Your task to perform on an android device: set the timer Image 0: 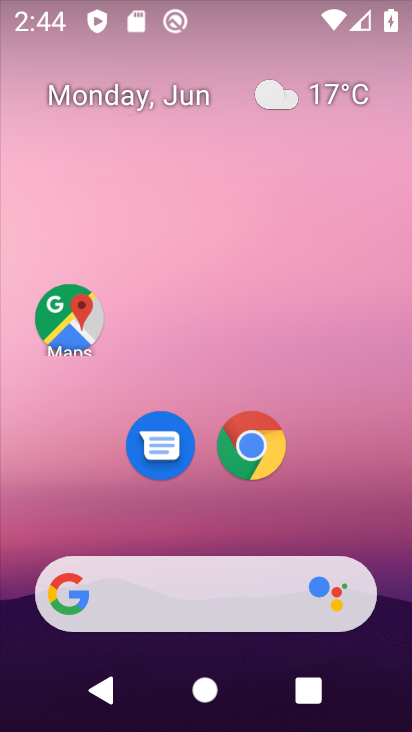
Step 0: drag from (171, 480) to (254, 143)
Your task to perform on an android device: set the timer Image 1: 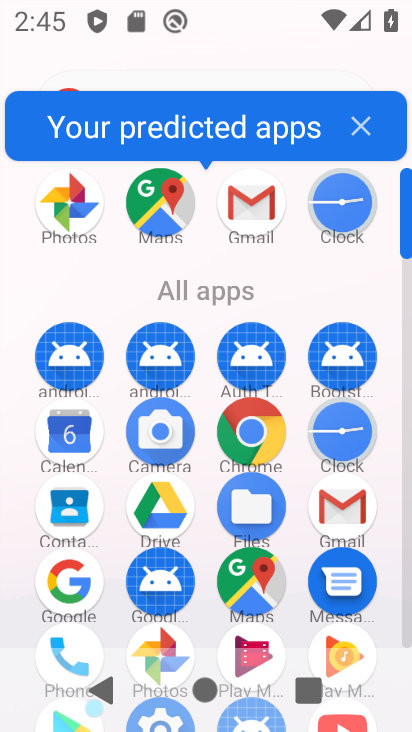
Step 1: click (322, 435)
Your task to perform on an android device: set the timer Image 2: 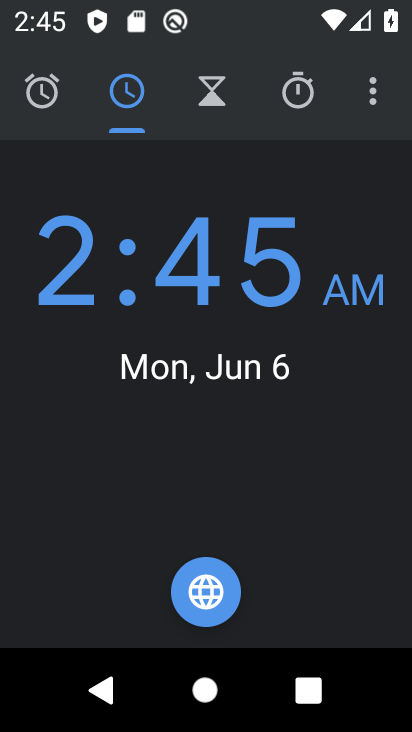
Step 2: click (218, 102)
Your task to perform on an android device: set the timer Image 3: 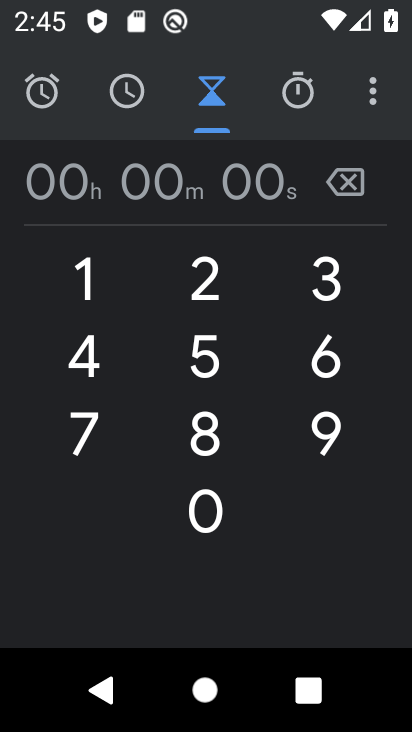
Step 3: click (200, 264)
Your task to perform on an android device: set the timer Image 4: 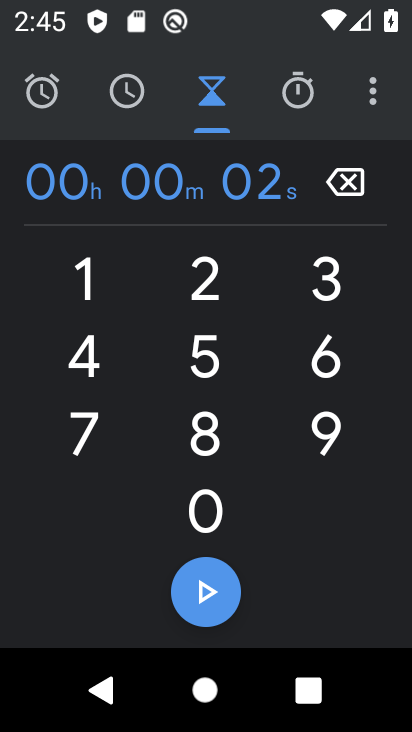
Step 4: click (214, 532)
Your task to perform on an android device: set the timer Image 5: 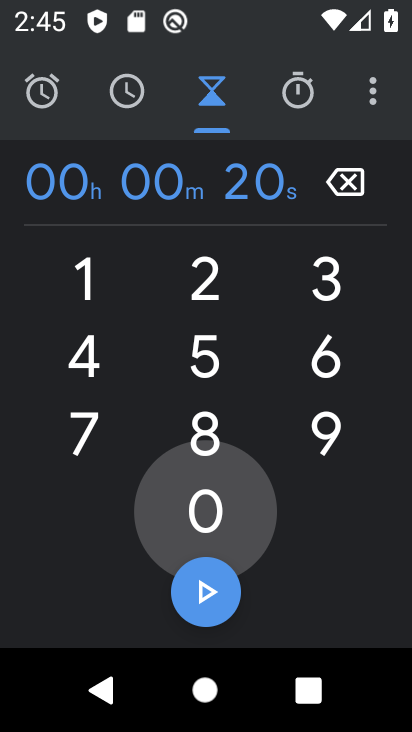
Step 5: click (214, 532)
Your task to perform on an android device: set the timer Image 6: 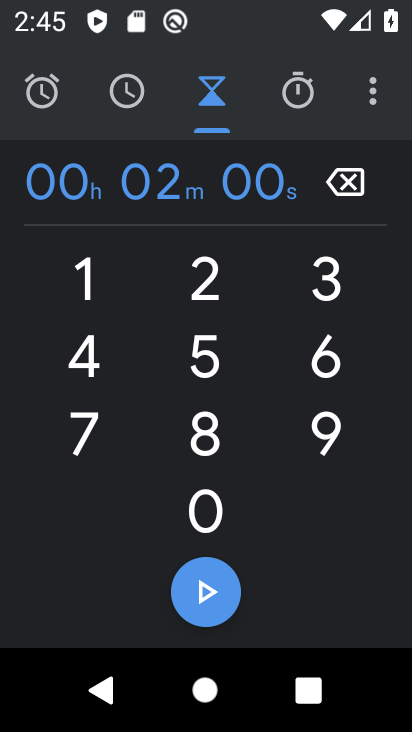
Step 6: click (199, 606)
Your task to perform on an android device: set the timer Image 7: 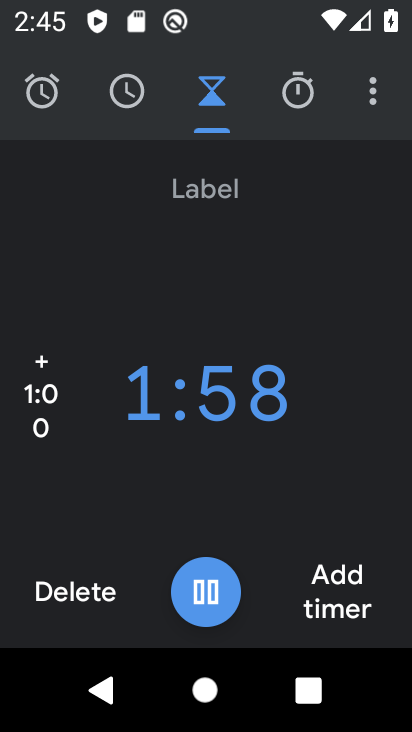
Step 7: task complete